Your task to perform on an android device: Open privacy settings Image 0: 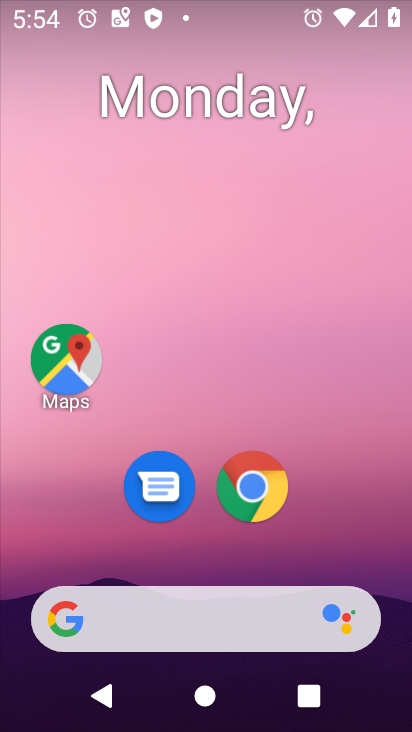
Step 0: drag from (301, 544) to (335, 186)
Your task to perform on an android device: Open privacy settings Image 1: 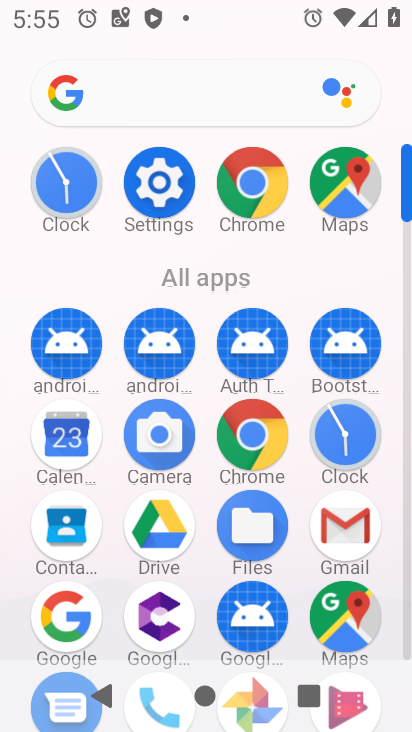
Step 1: click (160, 187)
Your task to perform on an android device: Open privacy settings Image 2: 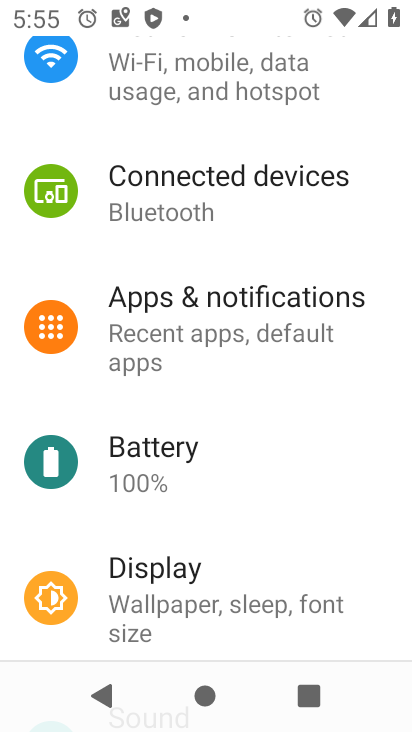
Step 2: drag from (262, 554) to (294, 81)
Your task to perform on an android device: Open privacy settings Image 3: 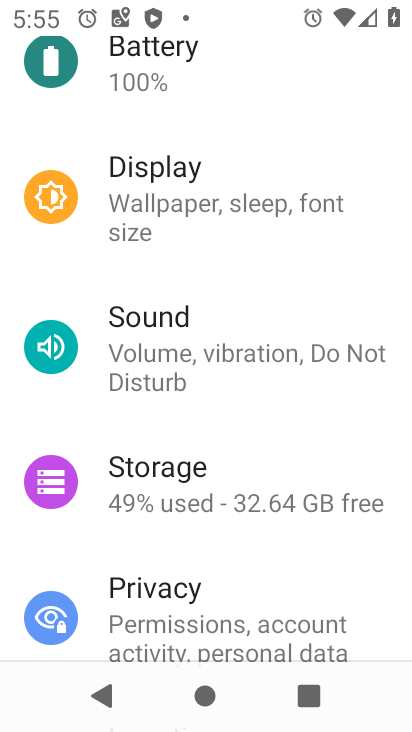
Step 3: click (139, 588)
Your task to perform on an android device: Open privacy settings Image 4: 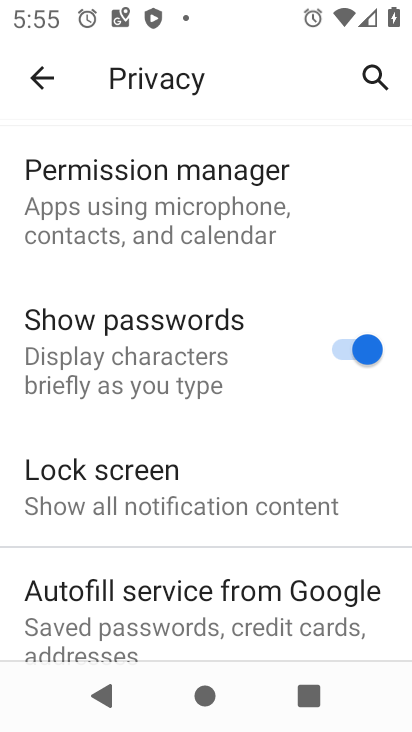
Step 4: task complete